Your task to perform on an android device: turn off improve location accuracy Image 0: 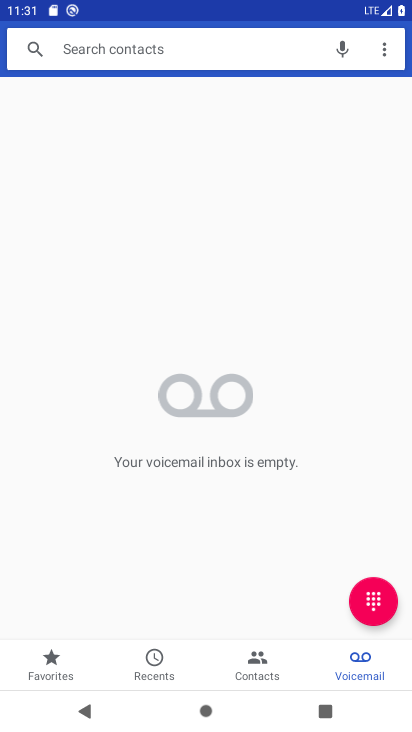
Step 0: drag from (231, 600) to (246, 6)
Your task to perform on an android device: turn off improve location accuracy Image 1: 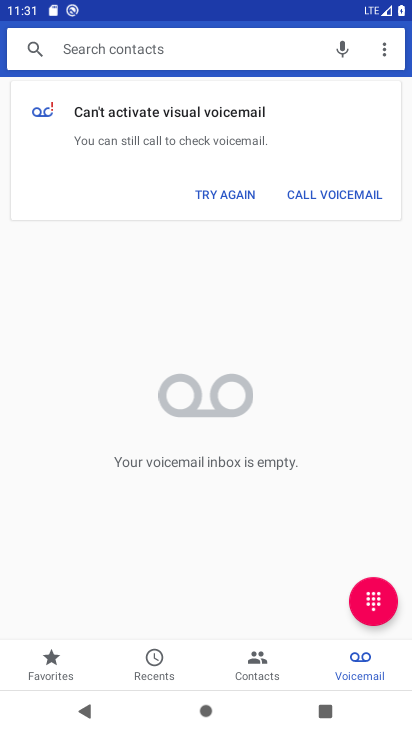
Step 1: press home button
Your task to perform on an android device: turn off improve location accuracy Image 2: 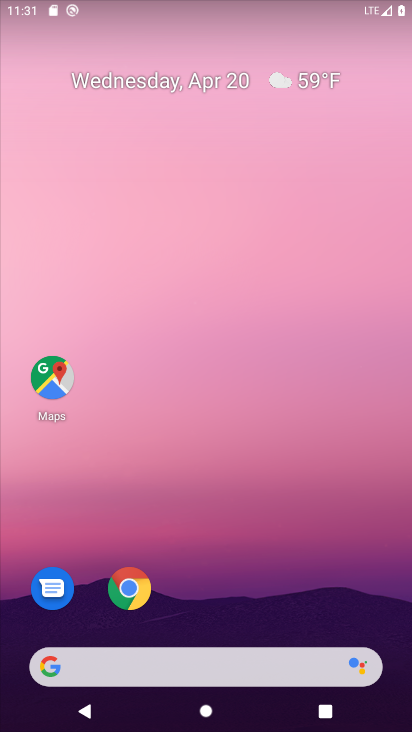
Step 2: drag from (215, 496) to (188, 5)
Your task to perform on an android device: turn off improve location accuracy Image 3: 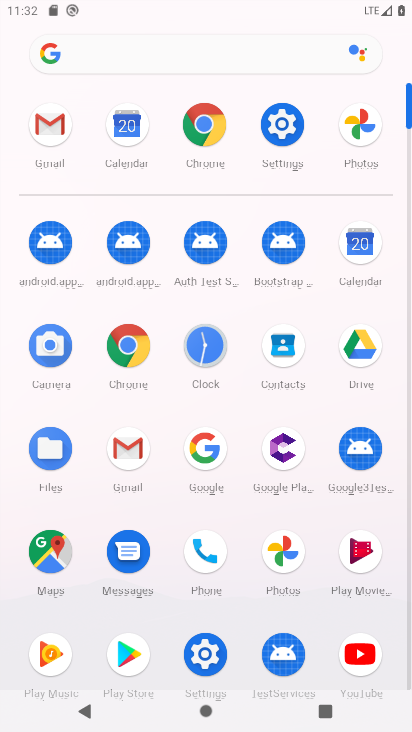
Step 3: click (280, 131)
Your task to perform on an android device: turn off improve location accuracy Image 4: 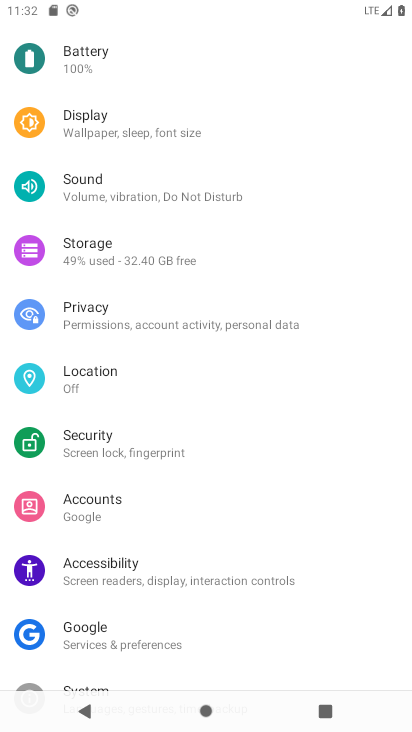
Step 4: click (92, 371)
Your task to perform on an android device: turn off improve location accuracy Image 5: 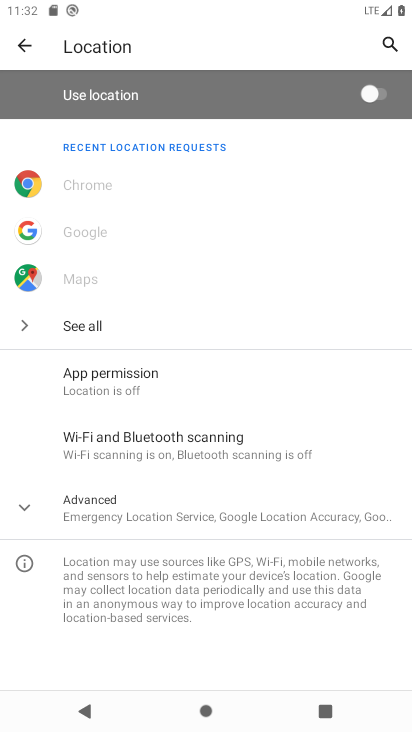
Step 5: click (25, 512)
Your task to perform on an android device: turn off improve location accuracy Image 6: 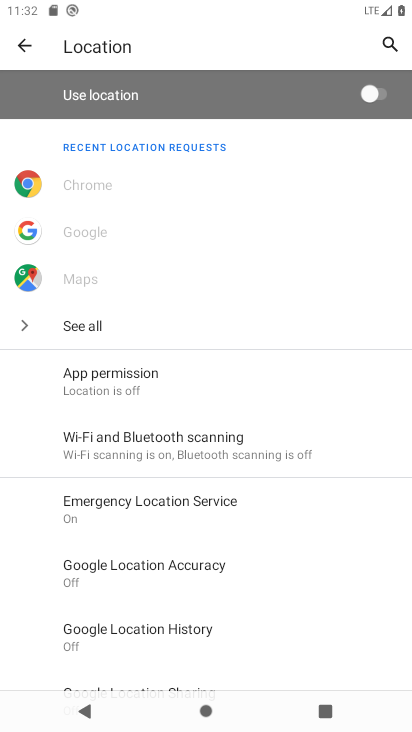
Step 6: click (177, 568)
Your task to perform on an android device: turn off improve location accuracy Image 7: 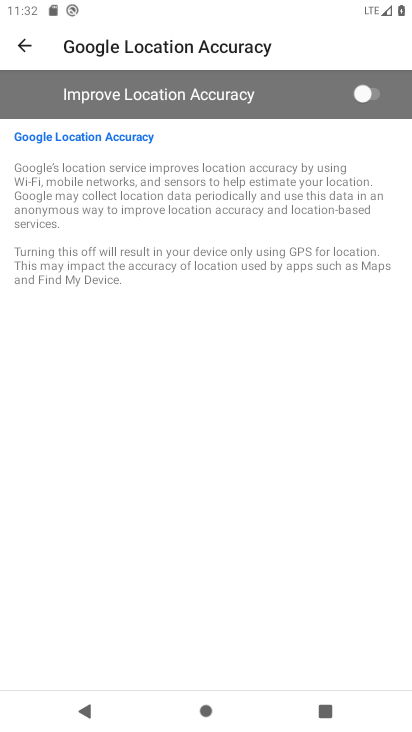
Step 7: task complete